Your task to perform on an android device: Open the map Image 0: 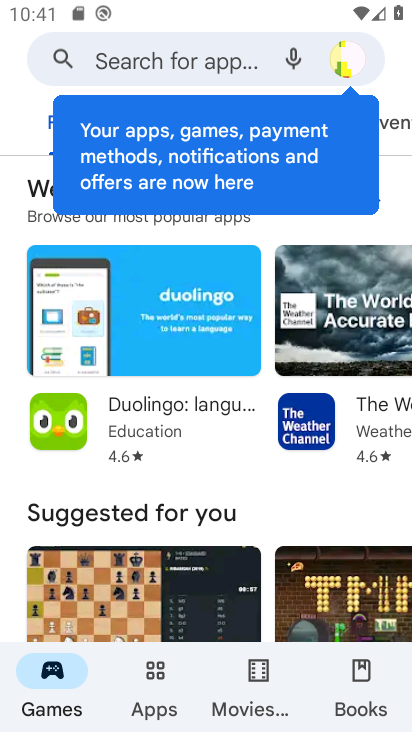
Step 0: press home button
Your task to perform on an android device: Open the map Image 1: 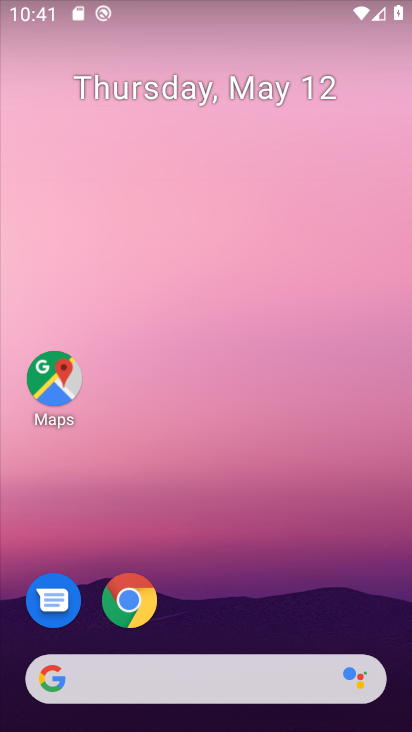
Step 1: click (65, 378)
Your task to perform on an android device: Open the map Image 2: 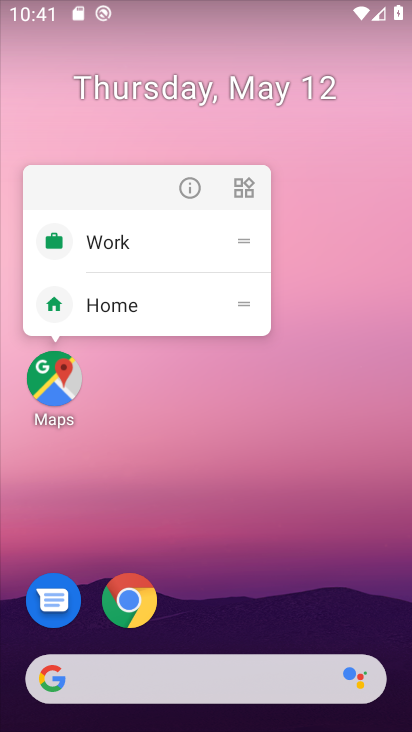
Step 2: click (52, 377)
Your task to perform on an android device: Open the map Image 3: 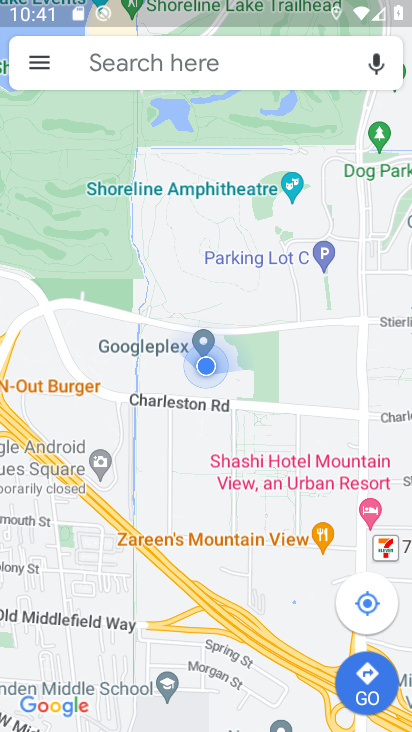
Step 3: task complete